Your task to perform on an android device: Open Google Maps and go to "Timeline" Image 0: 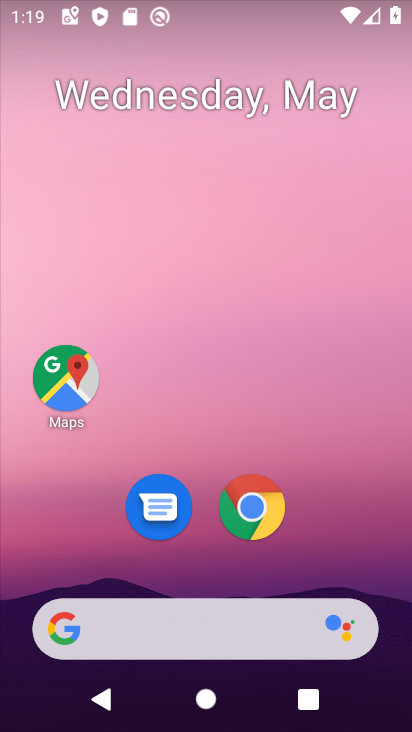
Step 0: click (260, 405)
Your task to perform on an android device: Open Google Maps and go to "Timeline" Image 1: 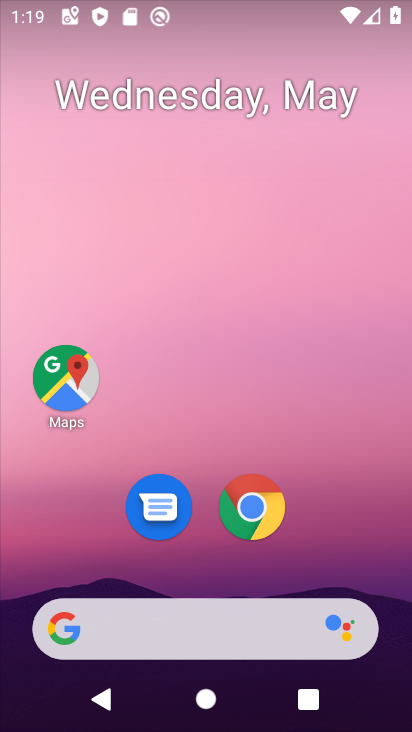
Step 1: drag from (224, 465) to (254, 163)
Your task to perform on an android device: Open Google Maps and go to "Timeline" Image 2: 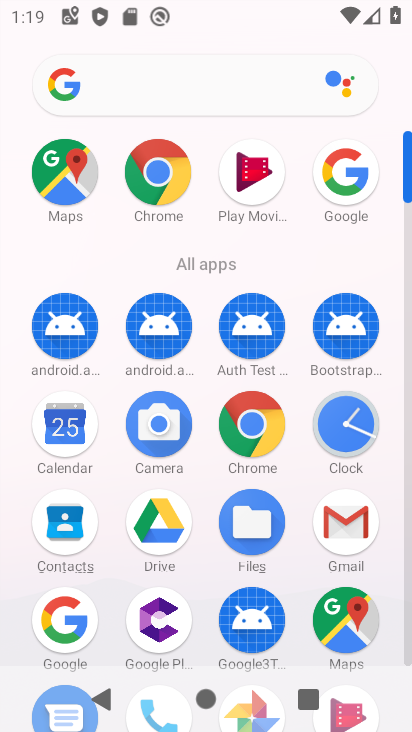
Step 2: click (358, 643)
Your task to perform on an android device: Open Google Maps and go to "Timeline" Image 3: 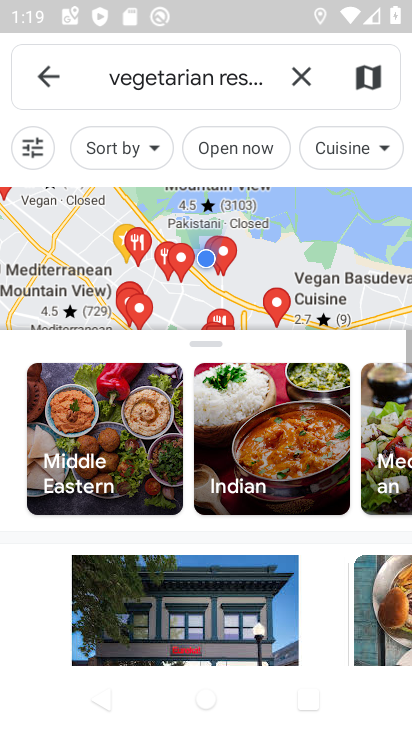
Step 3: click (35, 84)
Your task to perform on an android device: Open Google Maps and go to "Timeline" Image 4: 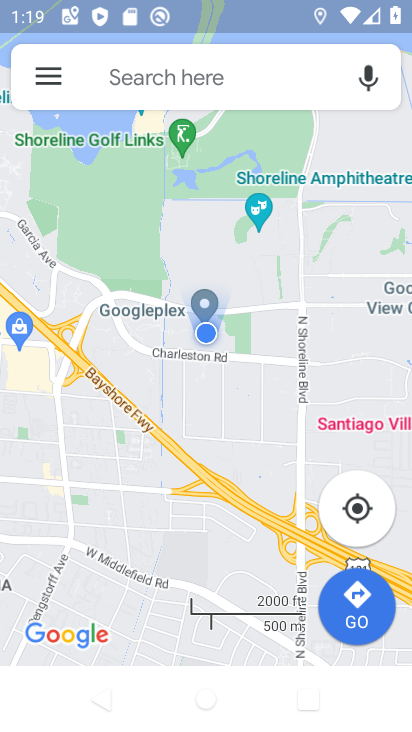
Step 4: click (38, 84)
Your task to perform on an android device: Open Google Maps and go to "Timeline" Image 5: 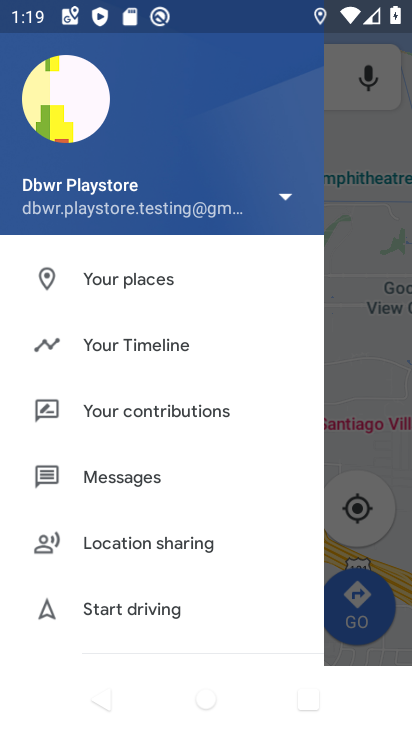
Step 5: click (146, 354)
Your task to perform on an android device: Open Google Maps and go to "Timeline" Image 6: 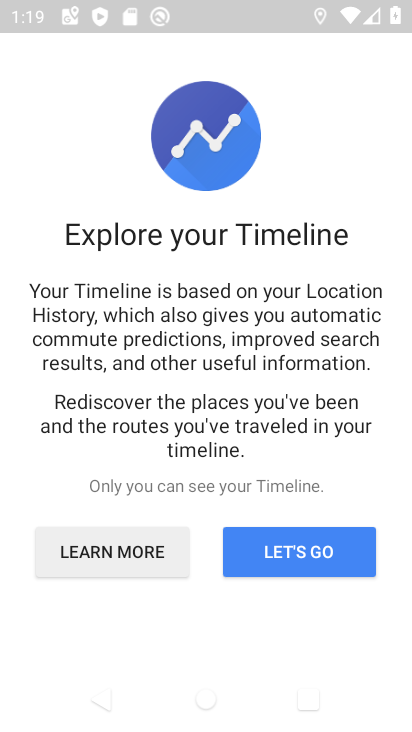
Step 6: click (254, 547)
Your task to perform on an android device: Open Google Maps and go to "Timeline" Image 7: 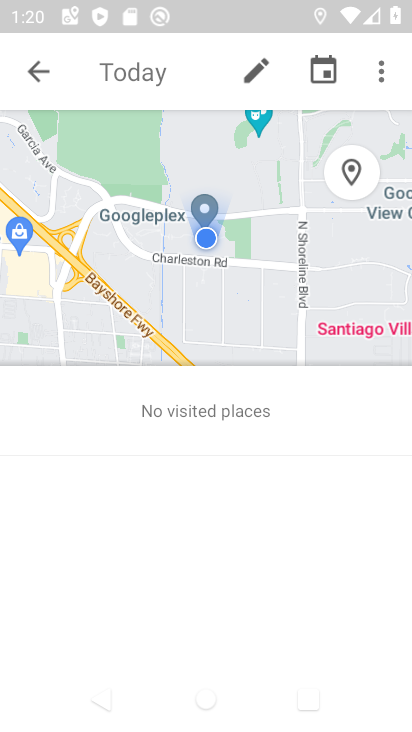
Step 7: task complete